Your task to perform on an android device: show emergency info Image 0: 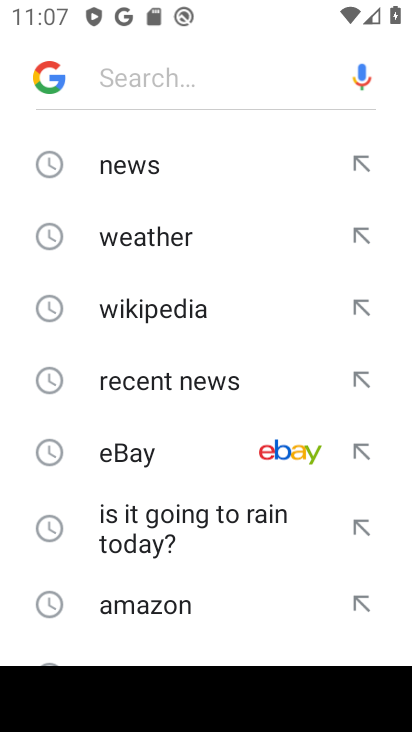
Step 0: press home button
Your task to perform on an android device: show emergency info Image 1: 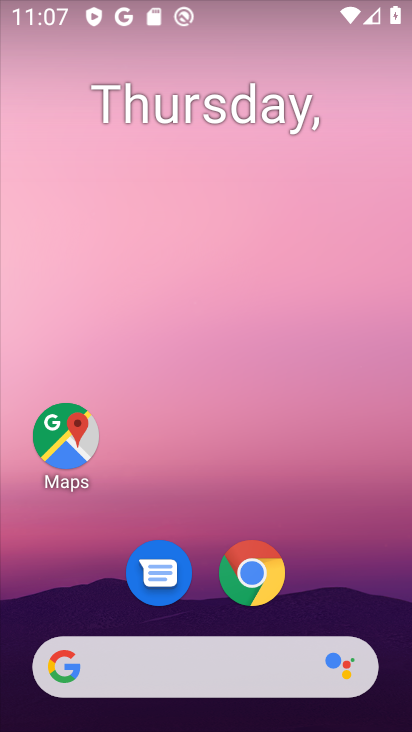
Step 1: drag from (173, 612) to (202, 101)
Your task to perform on an android device: show emergency info Image 2: 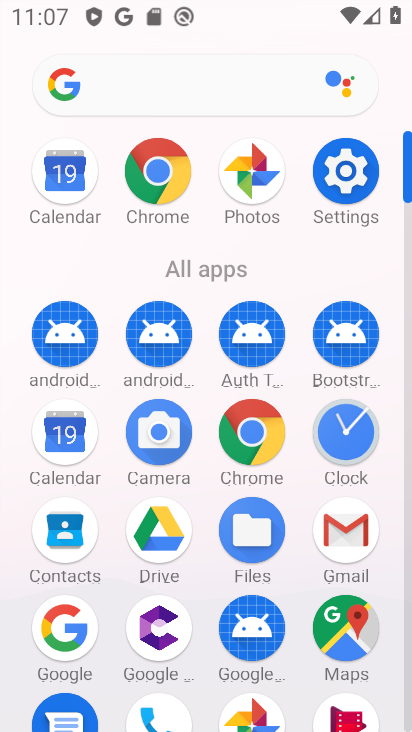
Step 2: click (351, 173)
Your task to perform on an android device: show emergency info Image 3: 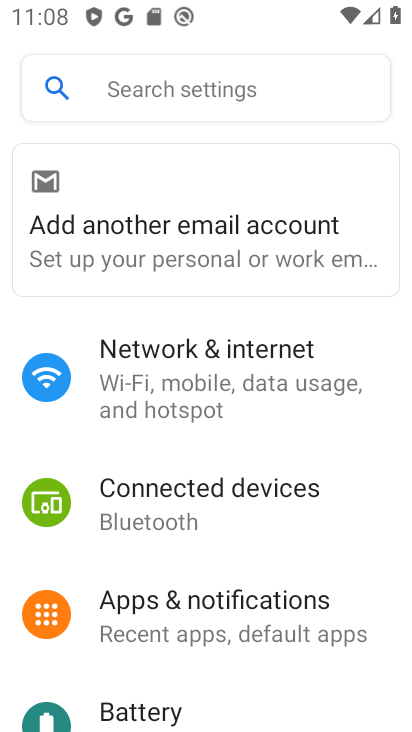
Step 3: drag from (165, 673) to (227, 214)
Your task to perform on an android device: show emergency info Image 4: 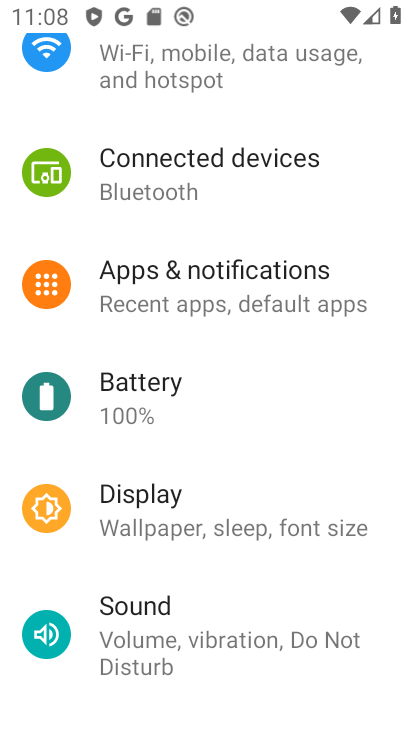
Step 4: drag from (184, 623) to (205, 178)
Your task to perform on an android device: show emergency info Image 5: 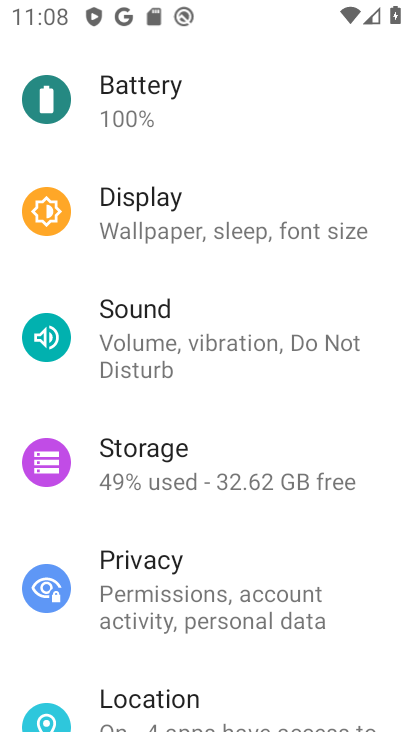
Step 5: drag from (127, 637) to (168, 215)
Your task to perform on an android device: show emergency info Image 6: 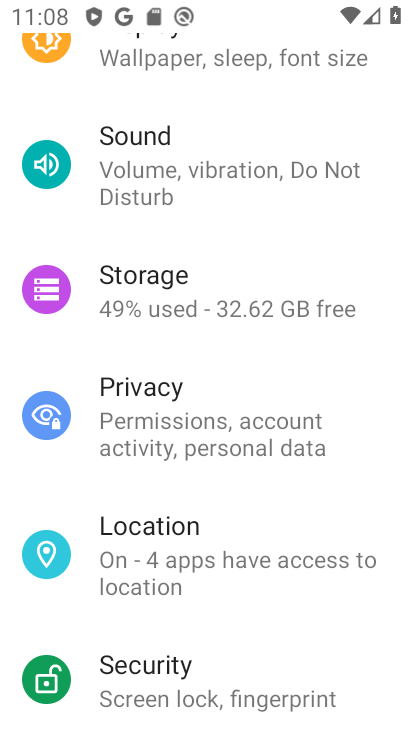
Step 6: drag from (154, 688) to (188, 405)
Your task to perform on an android device: show emergency info Image 7: 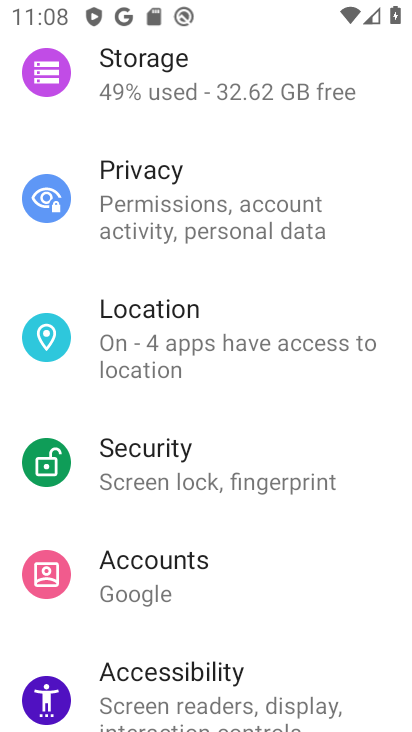
Step 7: drag from (150, 703) to (164, 337)
Your task to perform on an android device: show emergency info Image 8: 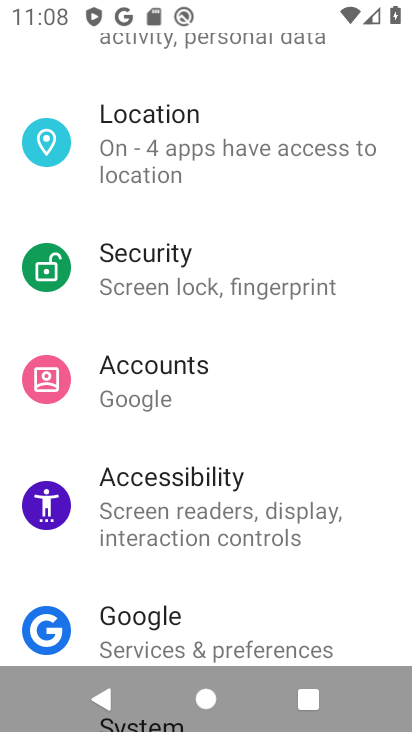
Step 8: drag from (161, 636) to (212, 281)
Your task to perform on an android device: show emergency info Image 9: 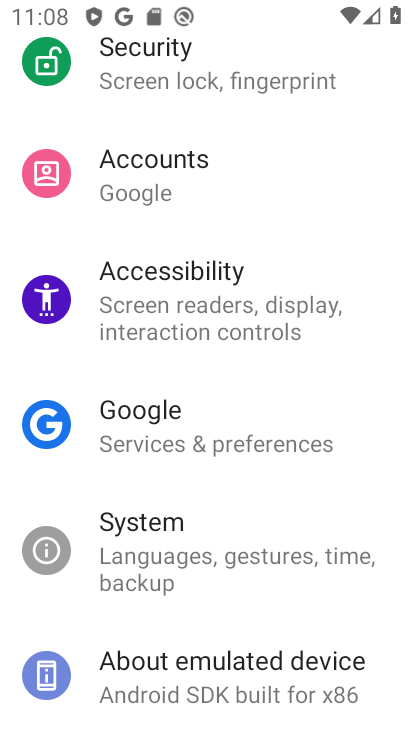
Step 9: click (168, 659)
Your task to perform on an android device: show emergency info Image 10: 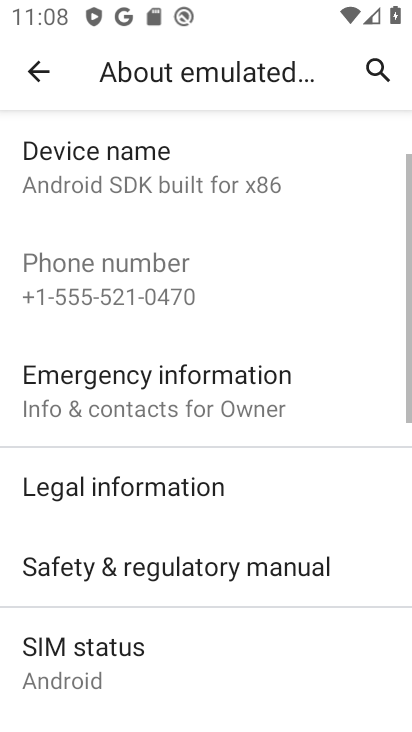
Step 10: drag from (175, 662) to (239, 189)
Your task to perform on an android device: show emergency info Image 11: 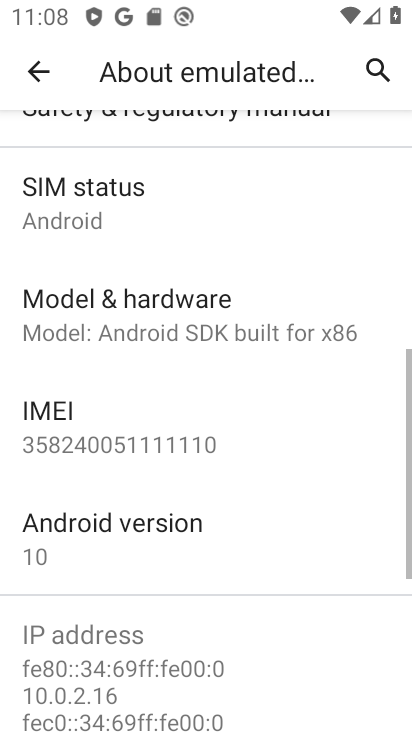
Step 11: click (153, 118)
Your task to perform on an android device: show emergency info Image 12: 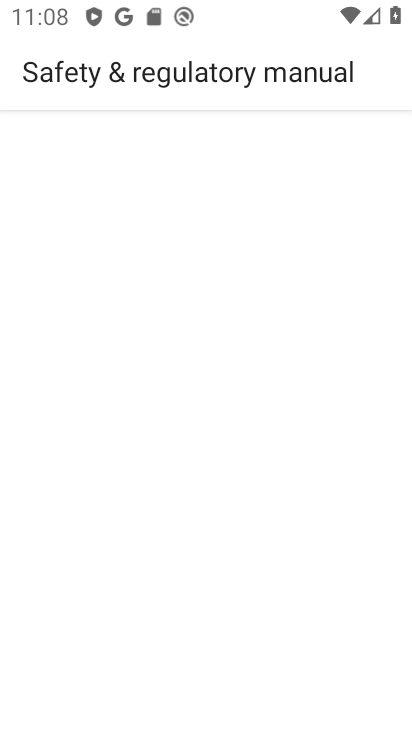
Step 12: task complete